Your task to perform on an android device: Go to Yahoo.com Image 0: 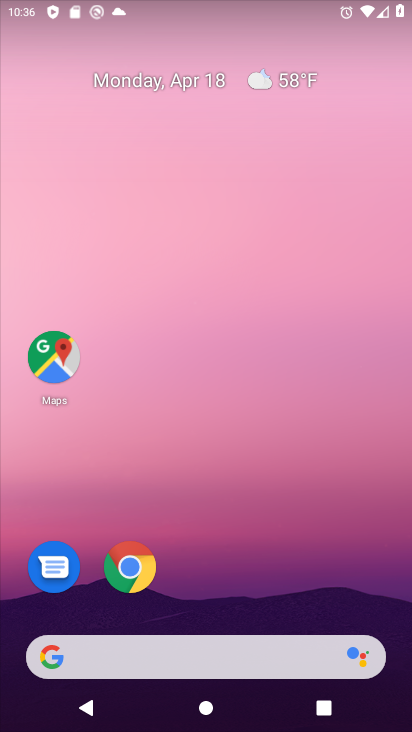
Step 0: click (134, 567)
Your task to perform on an android device: Go to Yahoo.com Image 1: 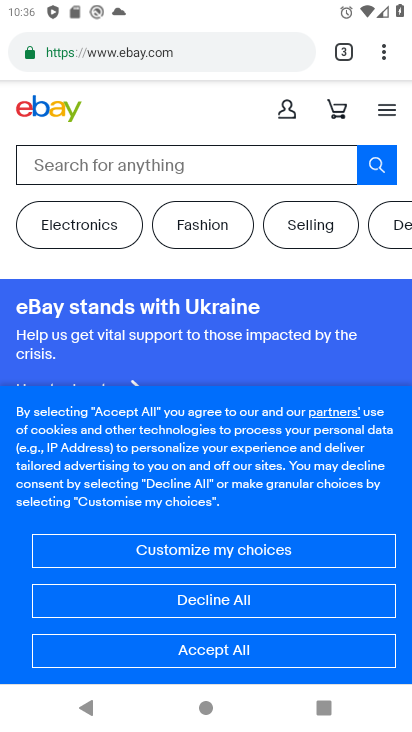
Step 1: click (384, 55)
Your task to perform on an android device: Go to Yahoo.com Image 2: 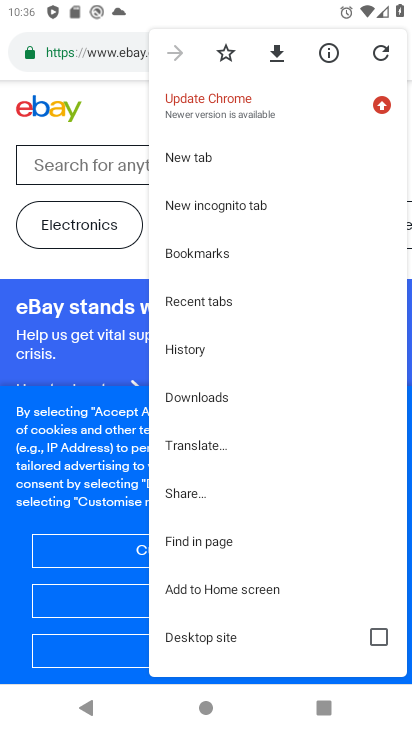
Step 2: click (196, 154)
Your task to perform on an android device: Go to Yahoo.com Image 3: 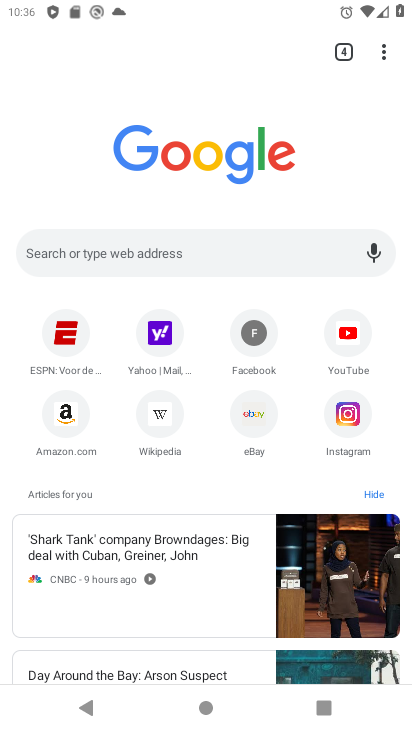
Step 3: click (184, 249)
Your task to perform on an android device: Go to Yahoo.com Image 4: 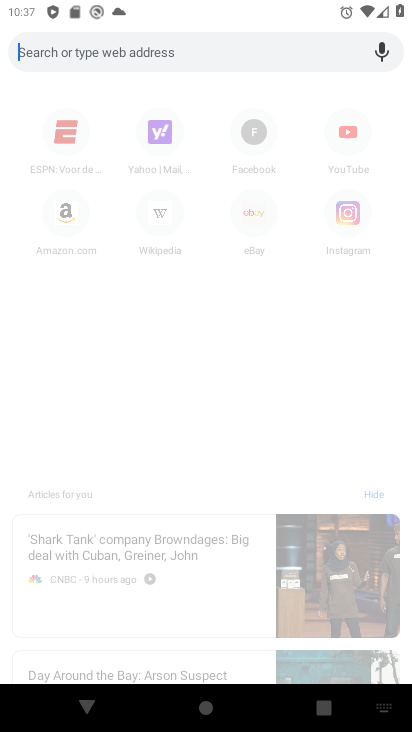
Step 4: type "yahoo.com"
Your task to perform on an android device: Go to Yahoo.com Image 5: 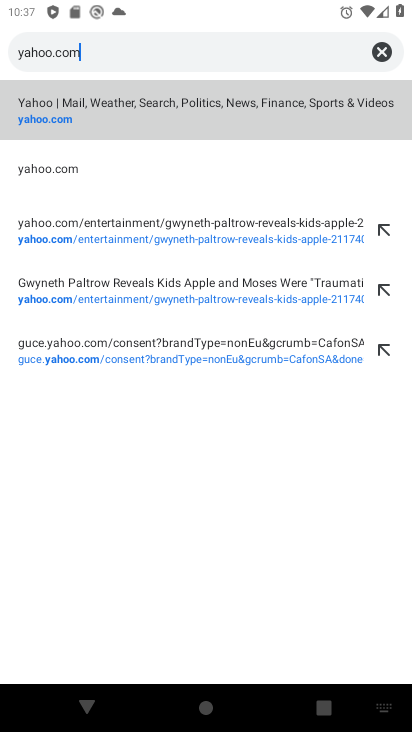
Step 5: type ""
Your task to perform on an android device: Go to Yahoo.com Image 6: 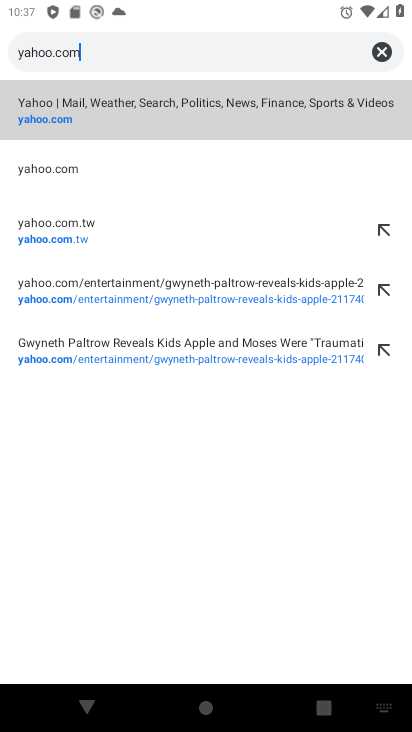
Step 6: click (56, 164)
Your task to perform on an android device: Go to Yahoo.com Image 7: 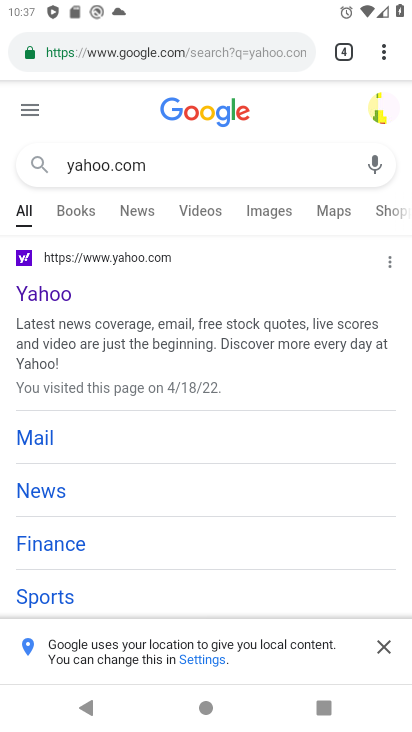
Step 7: click (58, 293)
Your task to perform on an android device: Go to Yahoo.com Image 8: 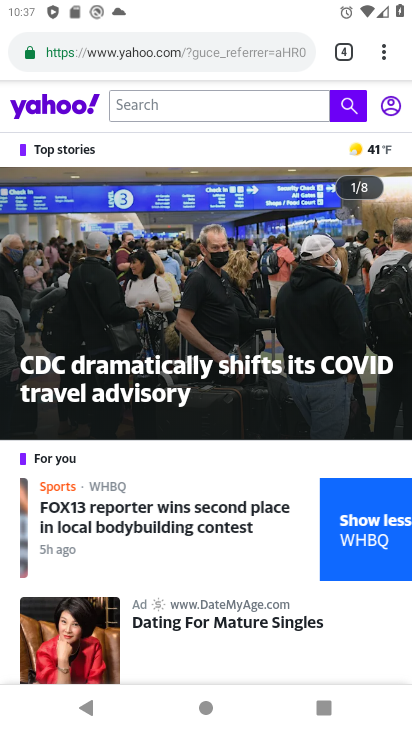
Step 8: task complete